Your task to perform on an android device: toggle improve location accuracy Image 0: 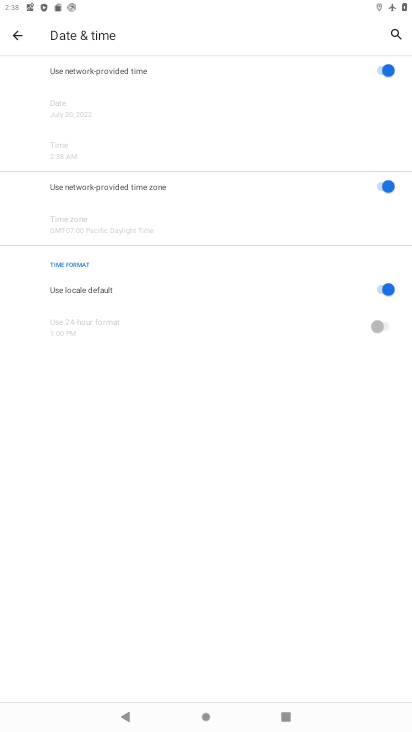
Step 0: press home button
Your task to perform on an android device: toggle improve location accuracy Image 1: 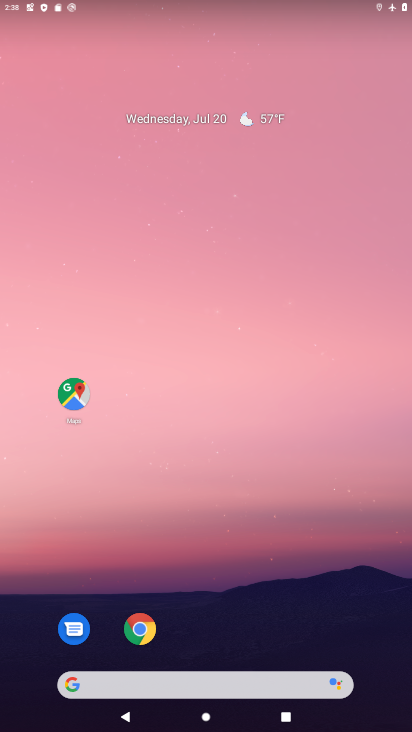
Step 1: drag from (216, 621) to (225, 55)
Your task to perform on an android device: toggle improve location accuracy Image 2: 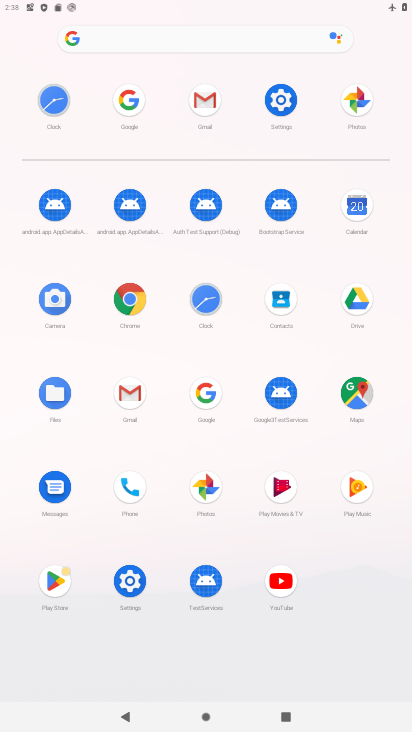
Step 2: click (277, 124)
Your task to perform on an android device: toggle improve location accuracy Image 3: 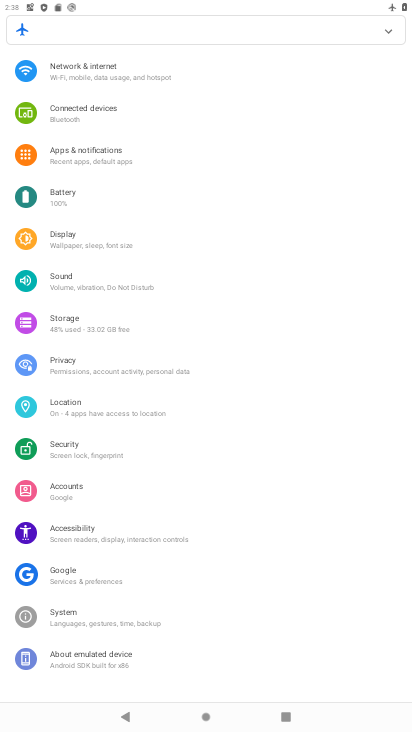
Step 3: click (69, 407)
Your task to perform on an android device: toggle improve location accuracy Image 4: 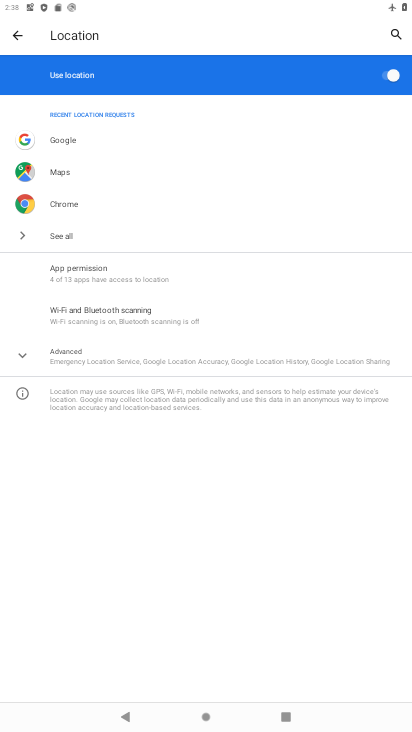
Step 4: click (144, 354)
Your task to perform on an android device: toggle improve location accuracy Image 5: 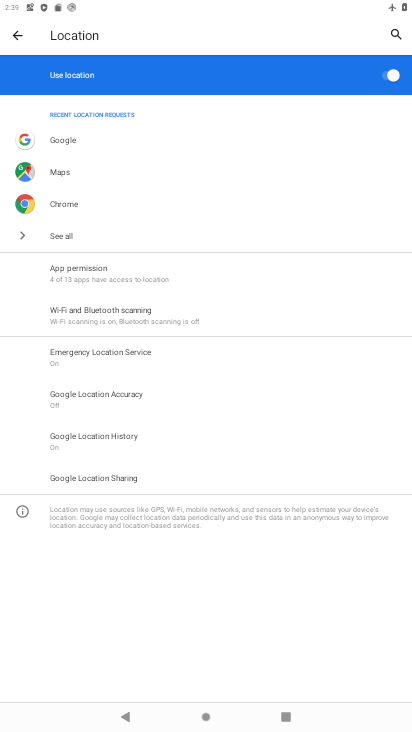
Step 5: click (84, 400)
Your task to perform on an android device: toggle improve location accuracy Image 6: 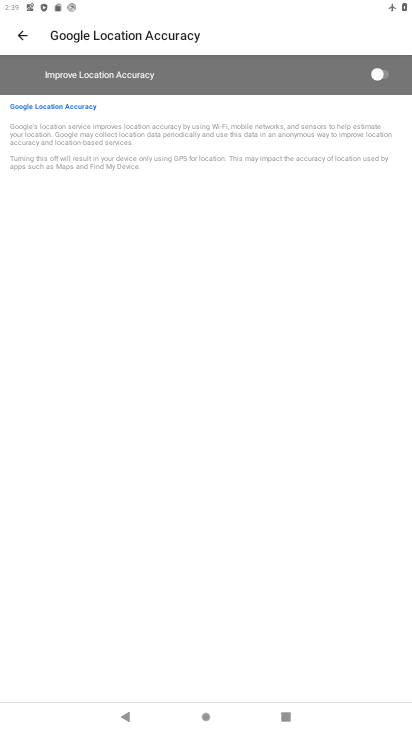
Step 6: click (374, 82)
Your task to perform on an android device: toggle improve location accuracy Image 7: 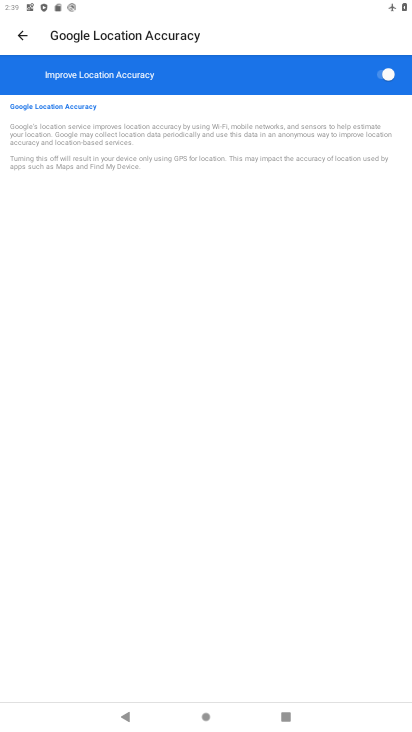
Step 7: task complete